Your task to perform on an android device: Search for hotels in NYC Image 0: 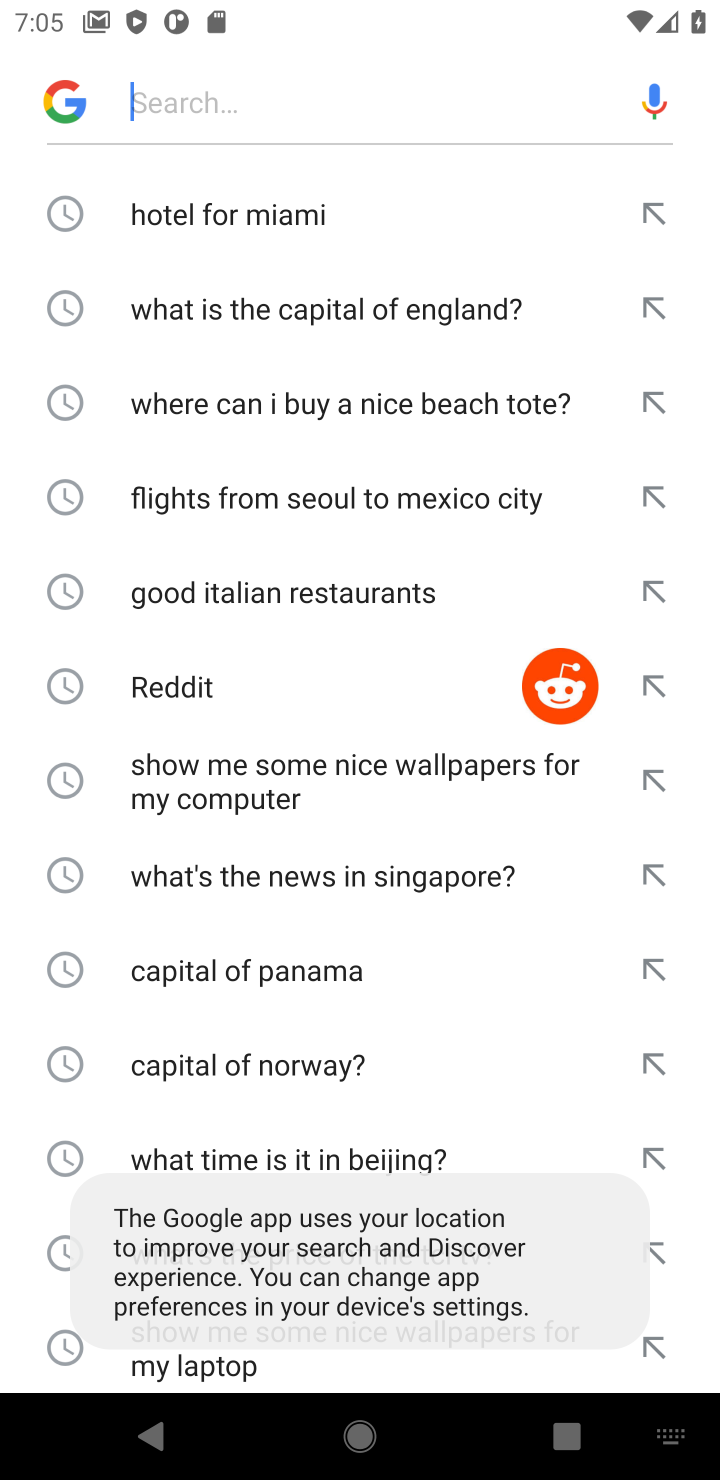
Step 0: press home button
Your task to perform on an android device: Search for hotels in NYC Image 1: 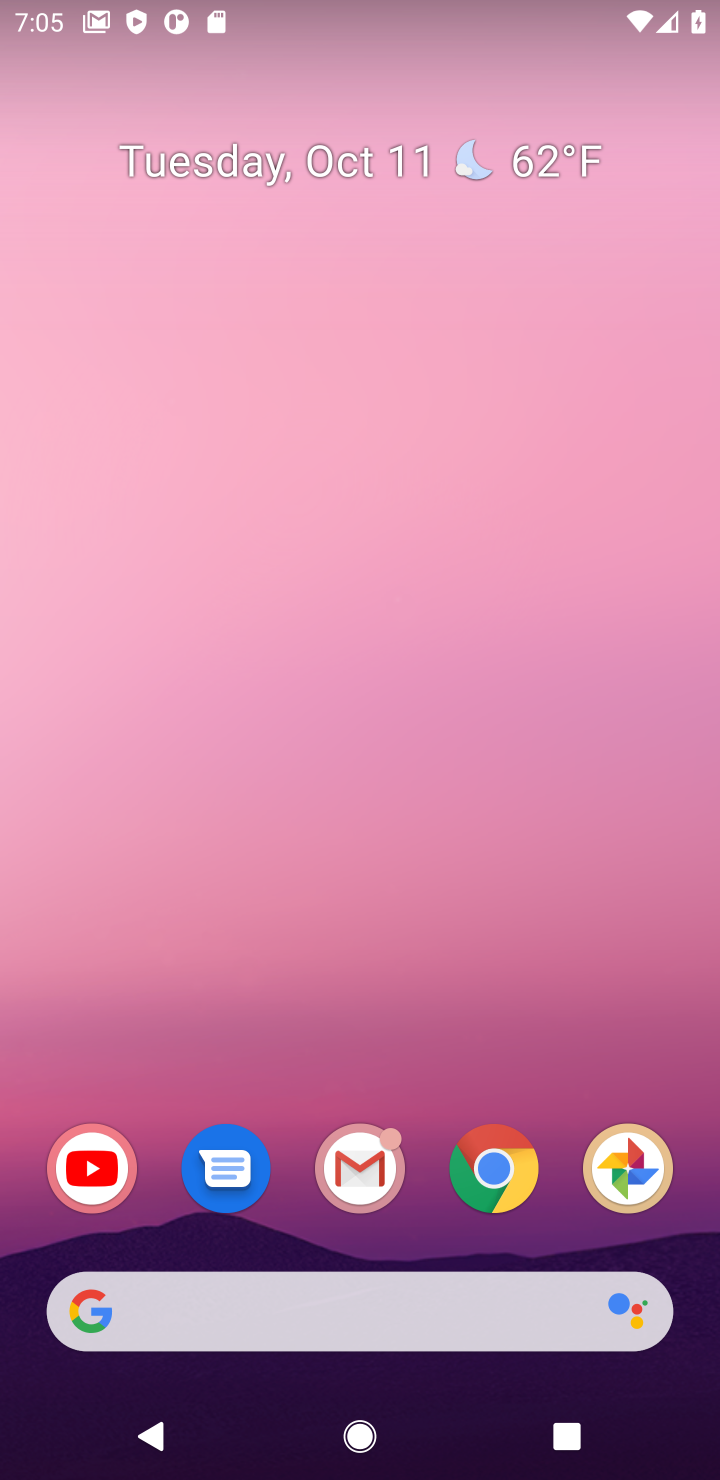
Step 1: click (523, 1170)
Your task to perform on an android device: Search for hotels in NYC Image 2: 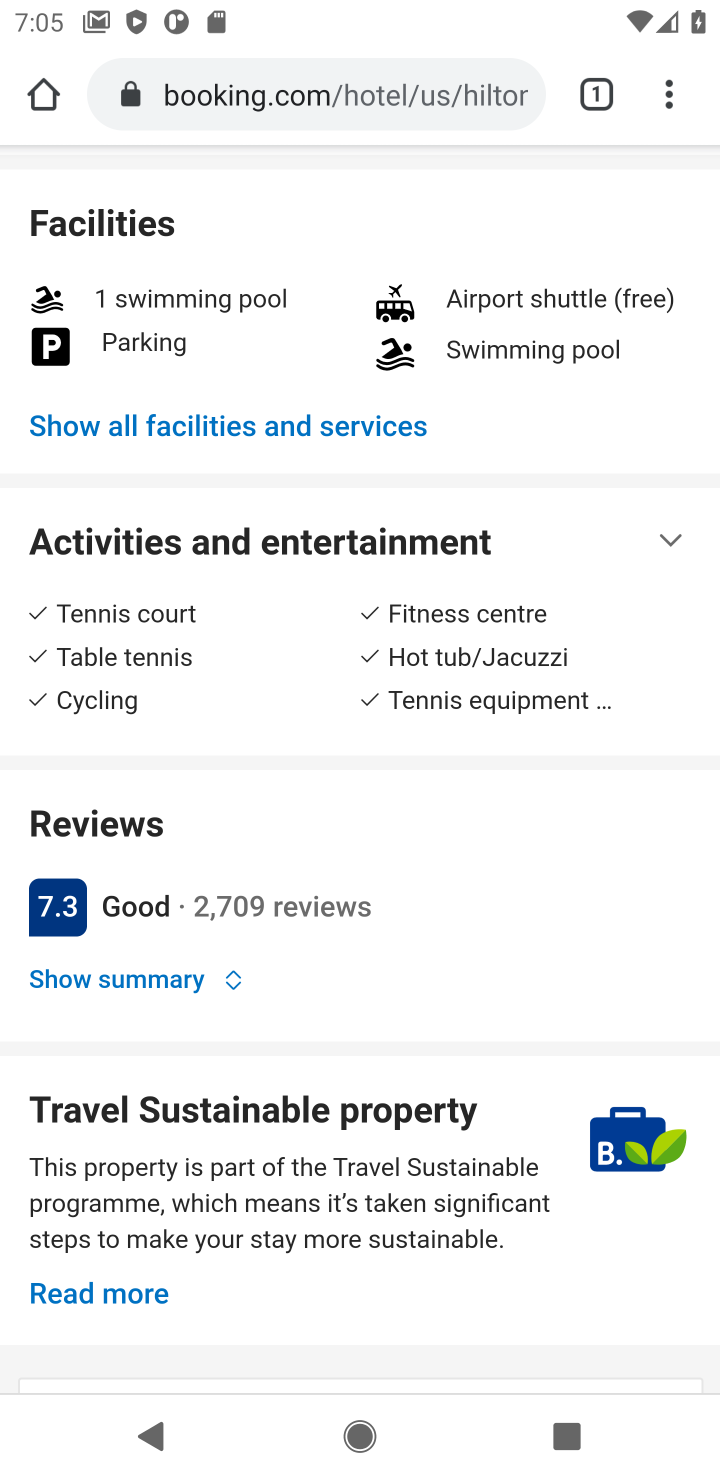
Step 2: click (252, 93)
Your task to perform on an android device: Search for hotels in NYC Image 3: 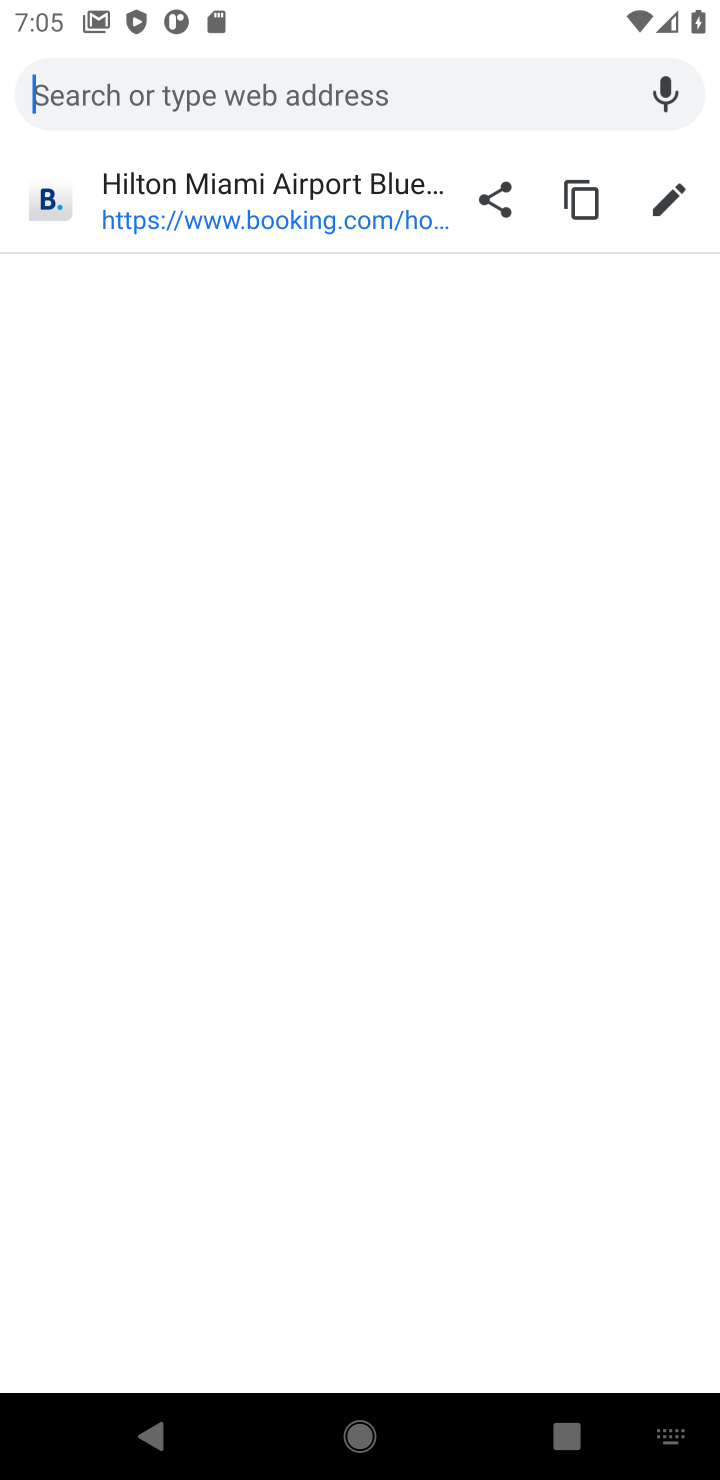
Step 3: type "hotel in nyc"
Your task to perform on an android device: Search for hotels in NYC Image 4: 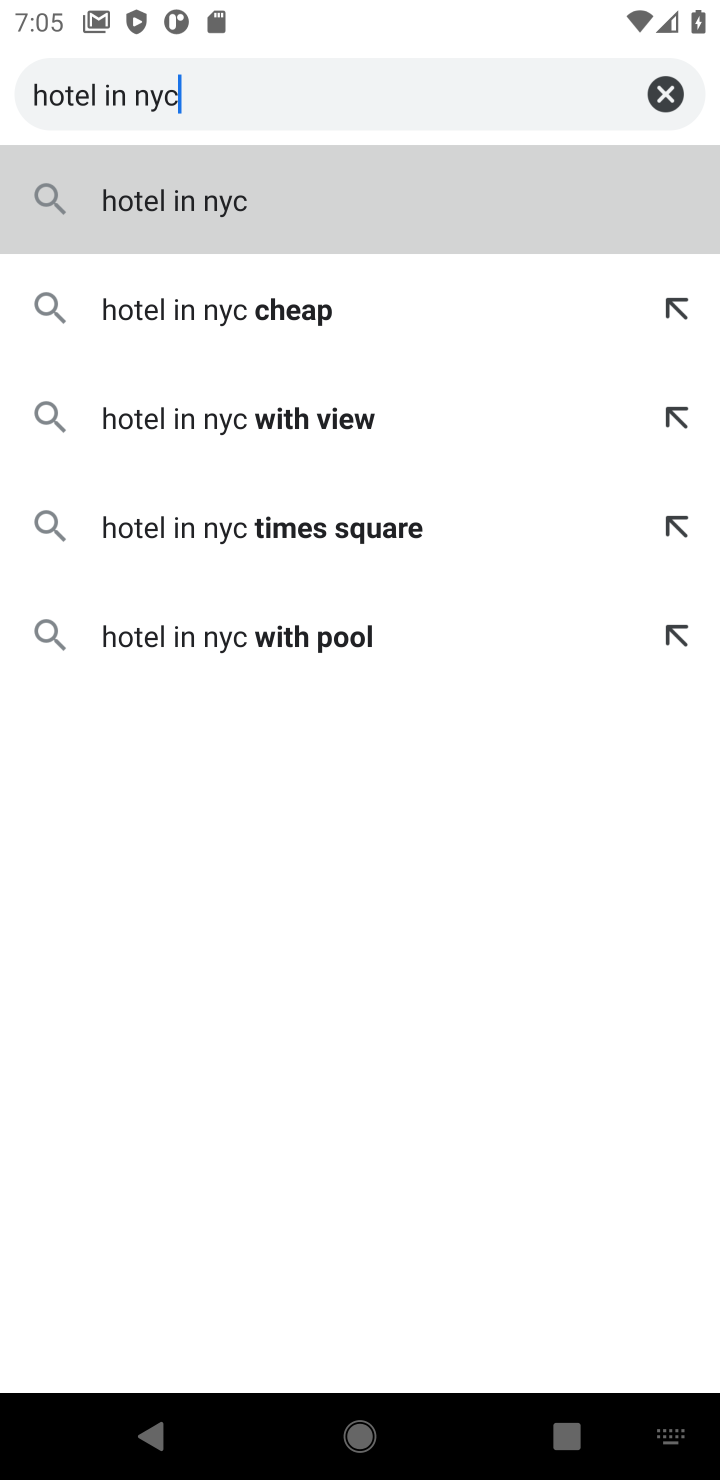
Step 4: click (290, 216)
Your task to perform on an android device: Search for hotels in NYC Image 5: 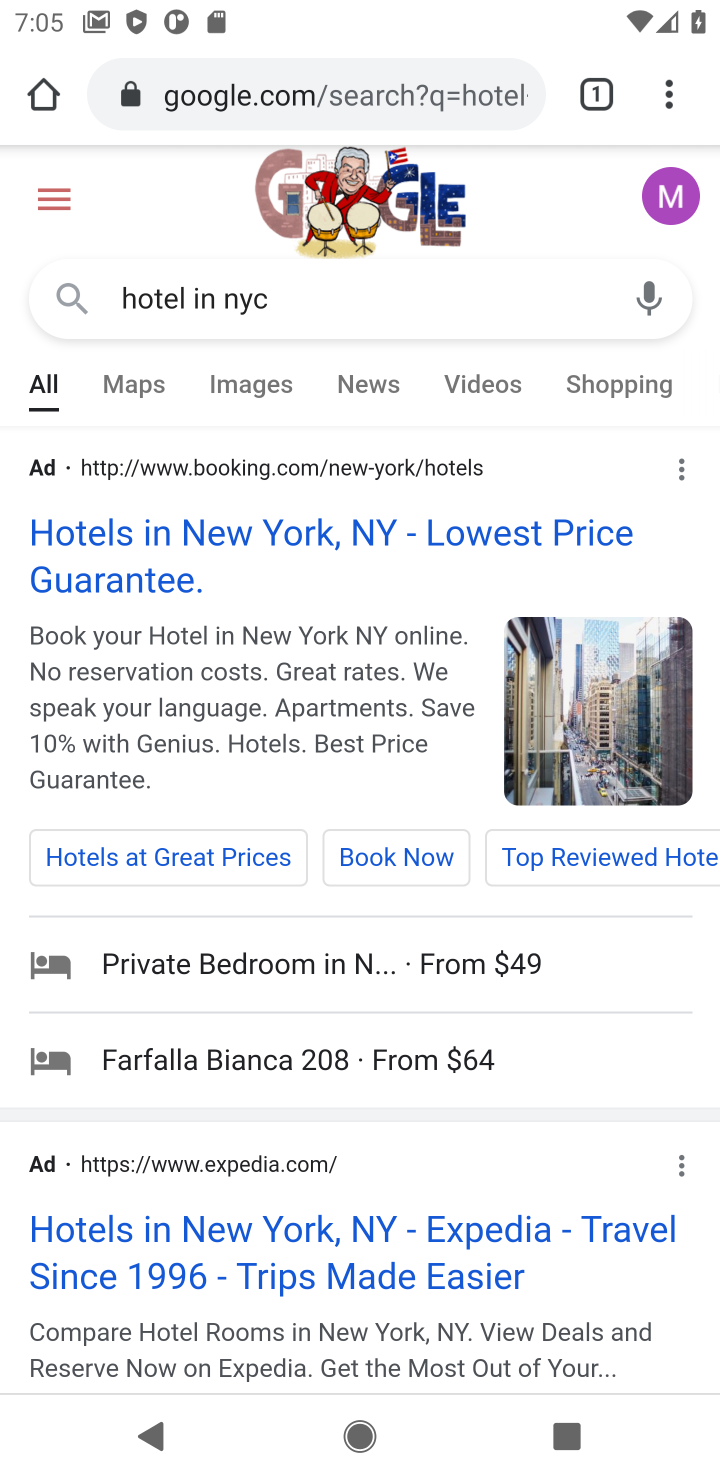
Step 5: click (197, 528)
Your task to perform on an android device: Search for hotels in NYC Image 6: 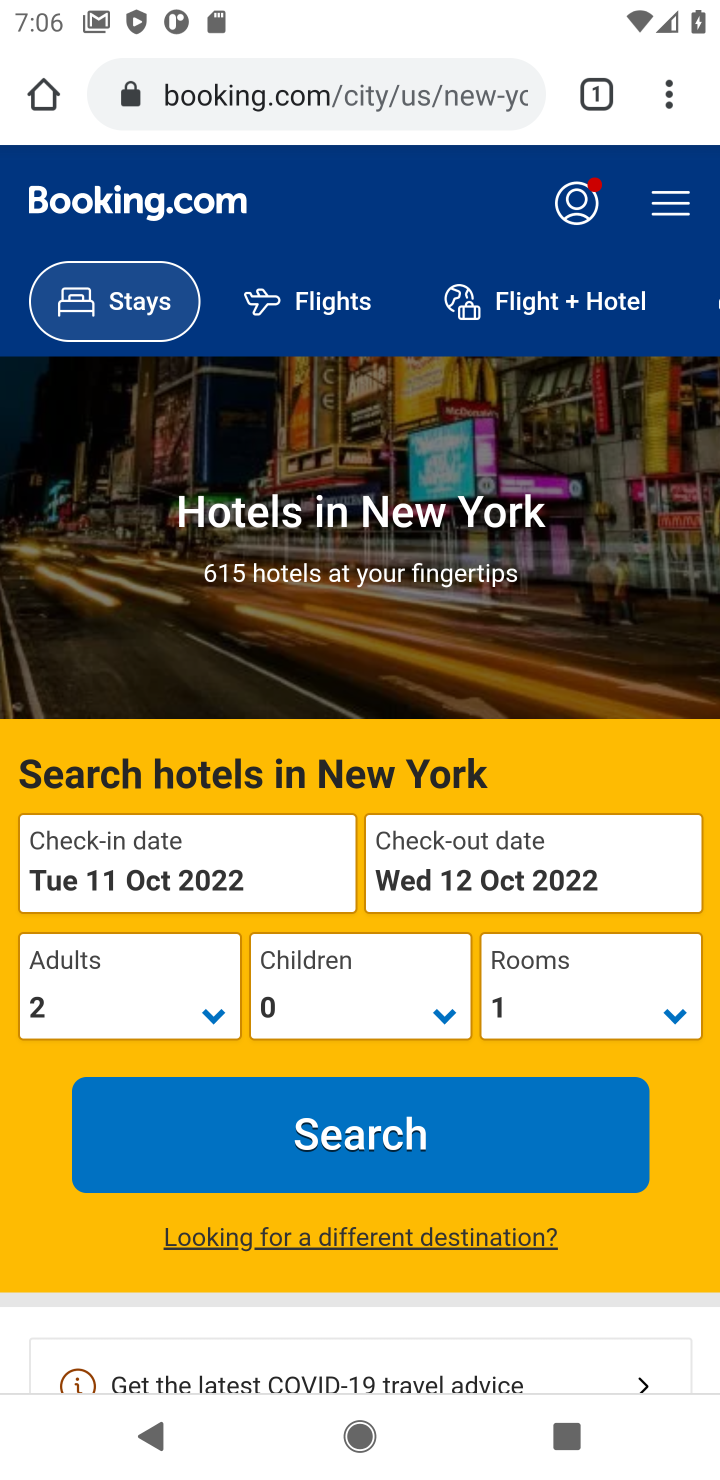
Step 6: drag from (501, 386) to (520, 279)
Your task to perform on an android device: Search for hotels in NYC Image 7: 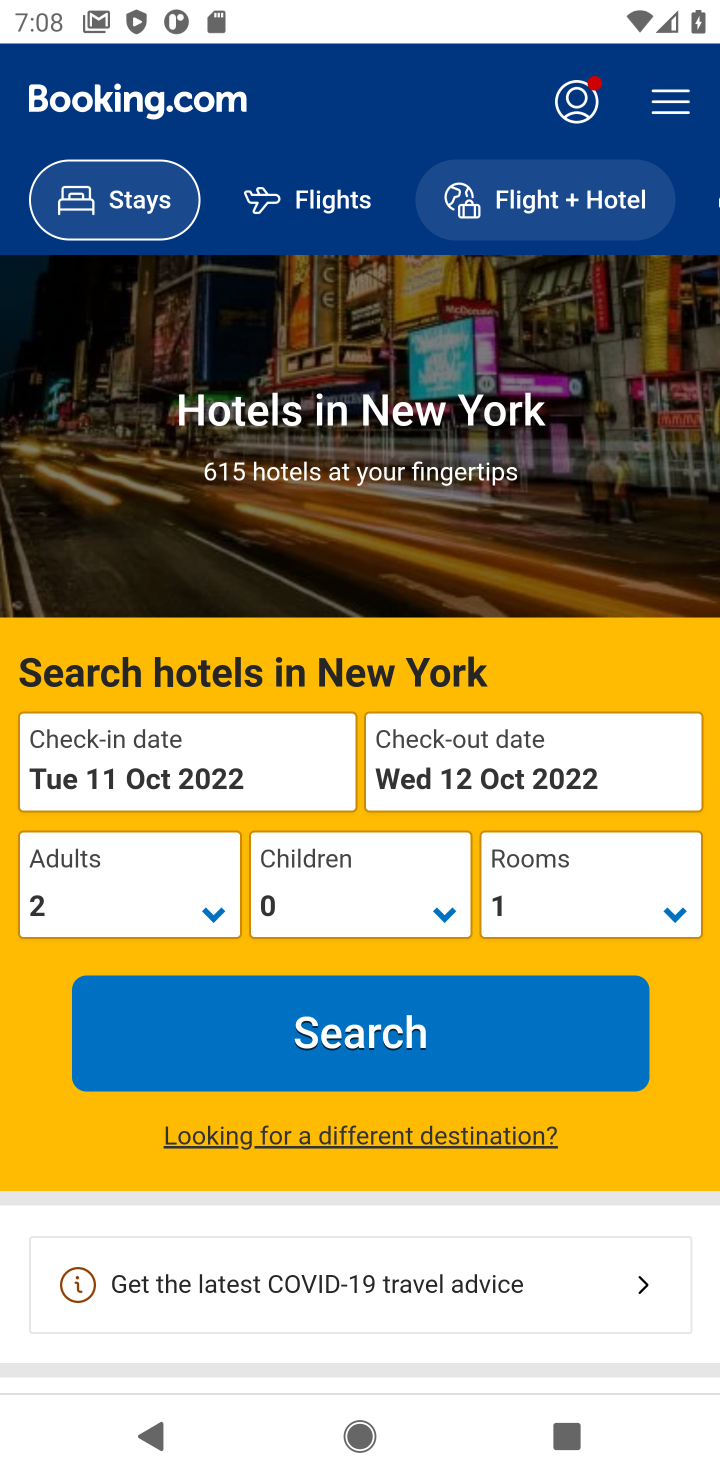
Step 7: drag from (484, 626) to (531, 278)
Your task to perform on an android device: Search for hotels in NYC Image 8: 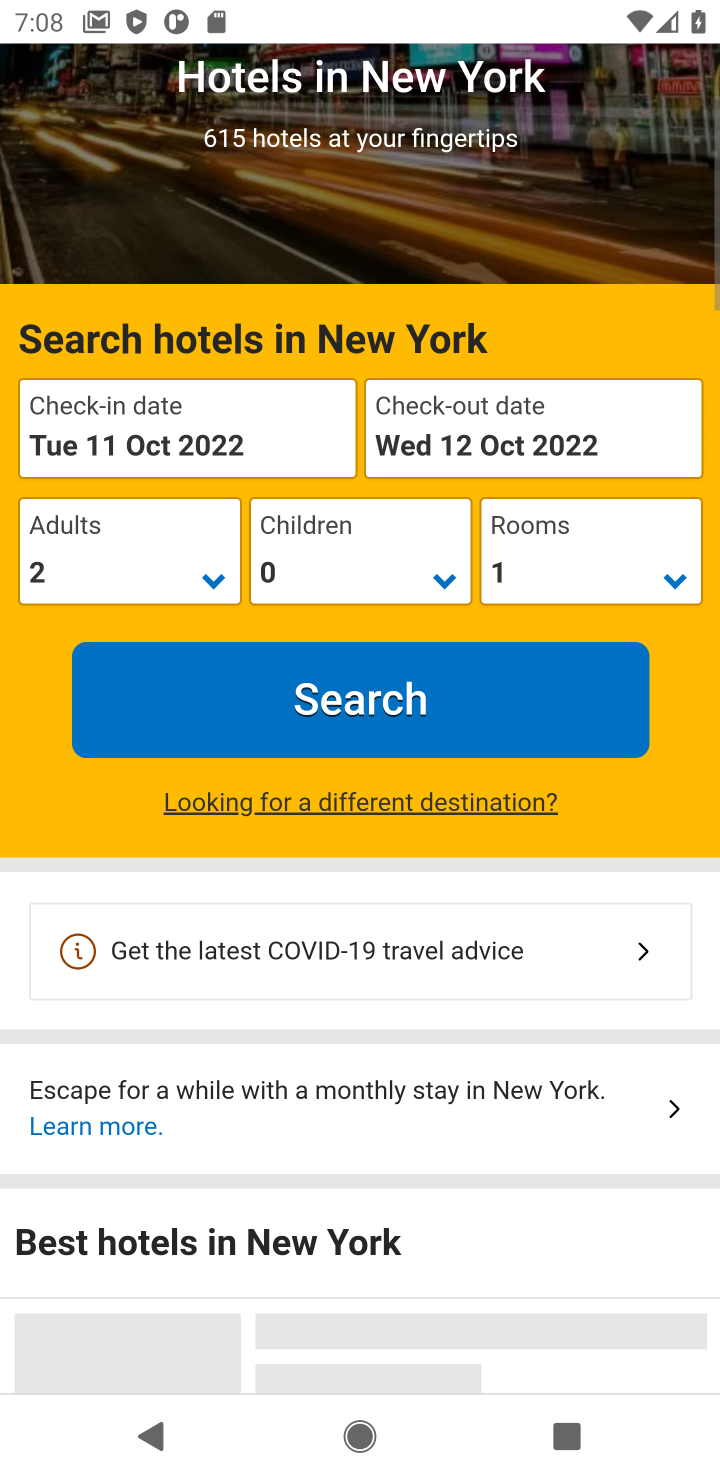
Step 8: drag from (48, 1116) to (94, 376)
Your task to perform on an android device: Search for hotels in NYC Image 9: 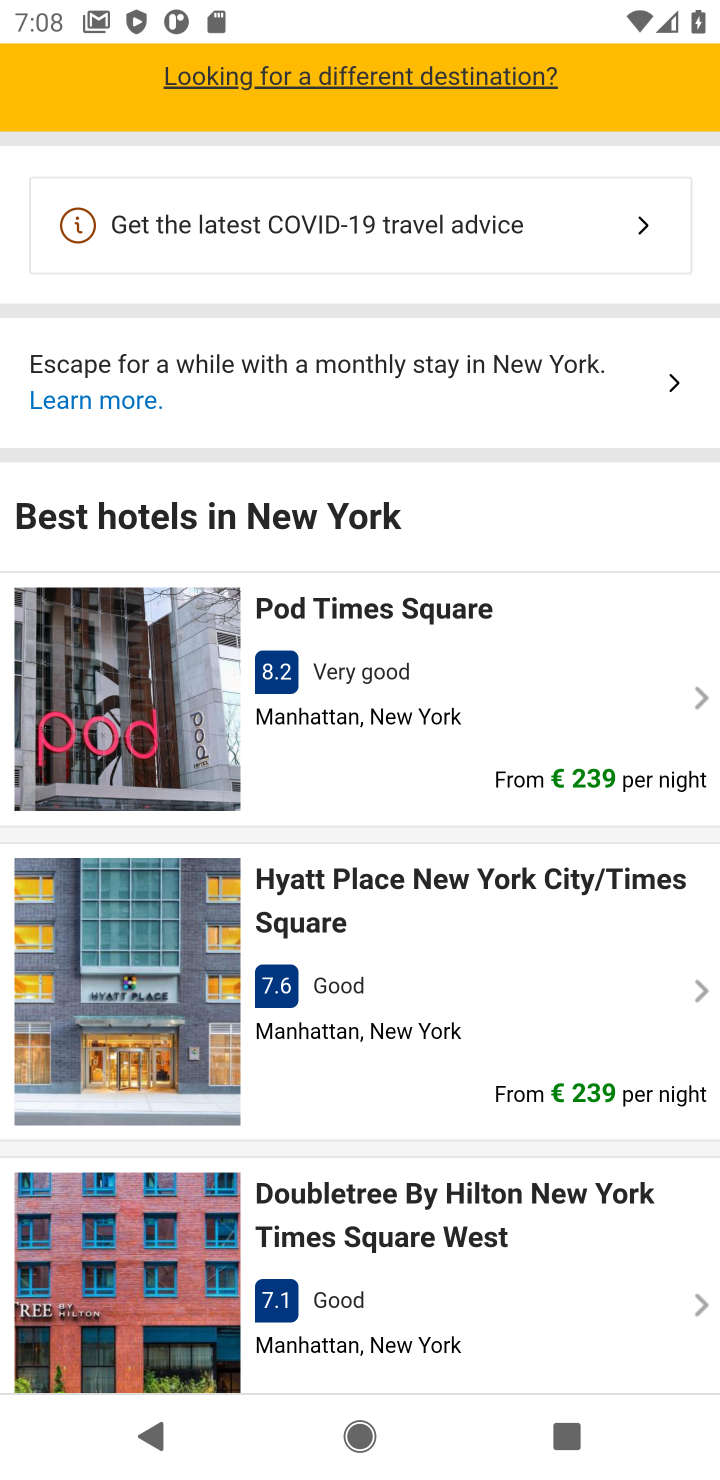
Step 9: drag from (513, 994) to (513, 386)
Your task to perform on an android device: Search for hotels in NYC Image 10: 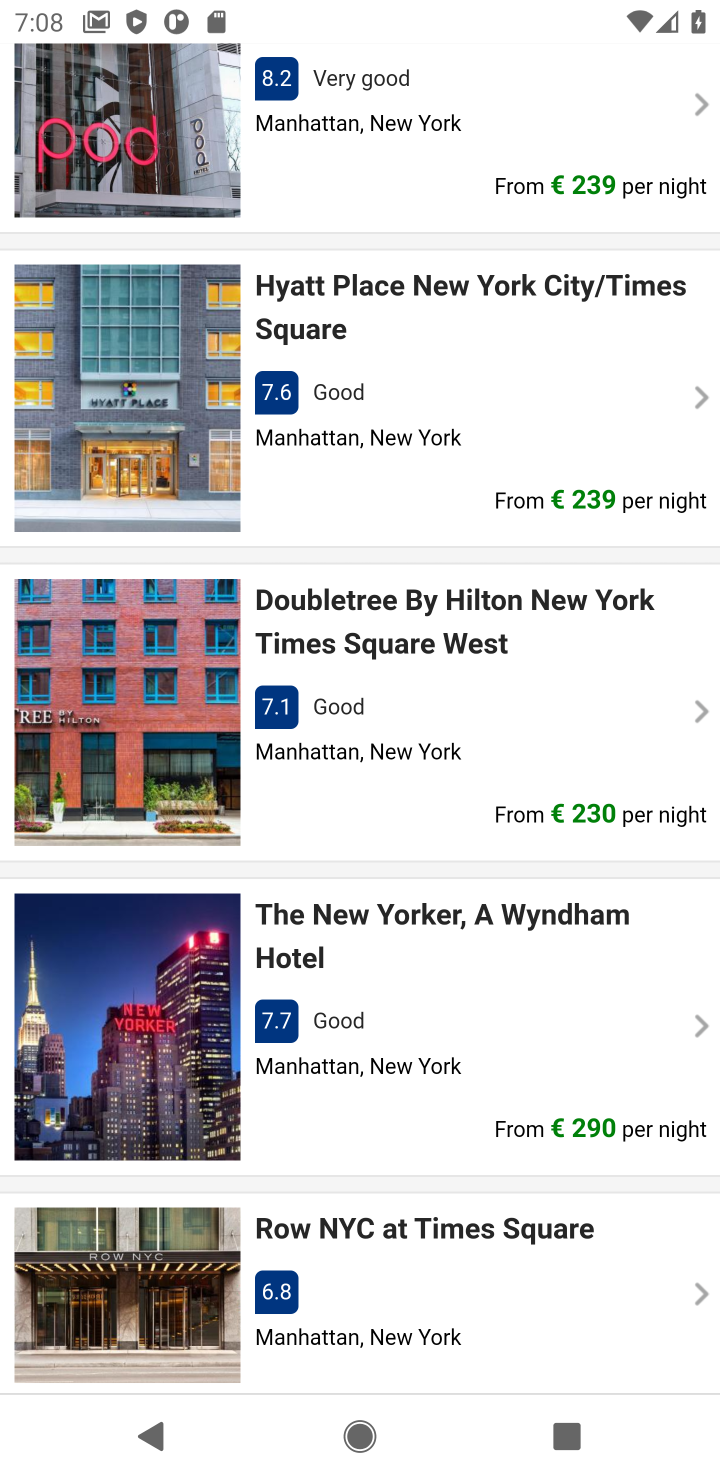
Step 10: click (290, 902)
Your task to perform on an android device: Search for hotels in NYC Image 11: 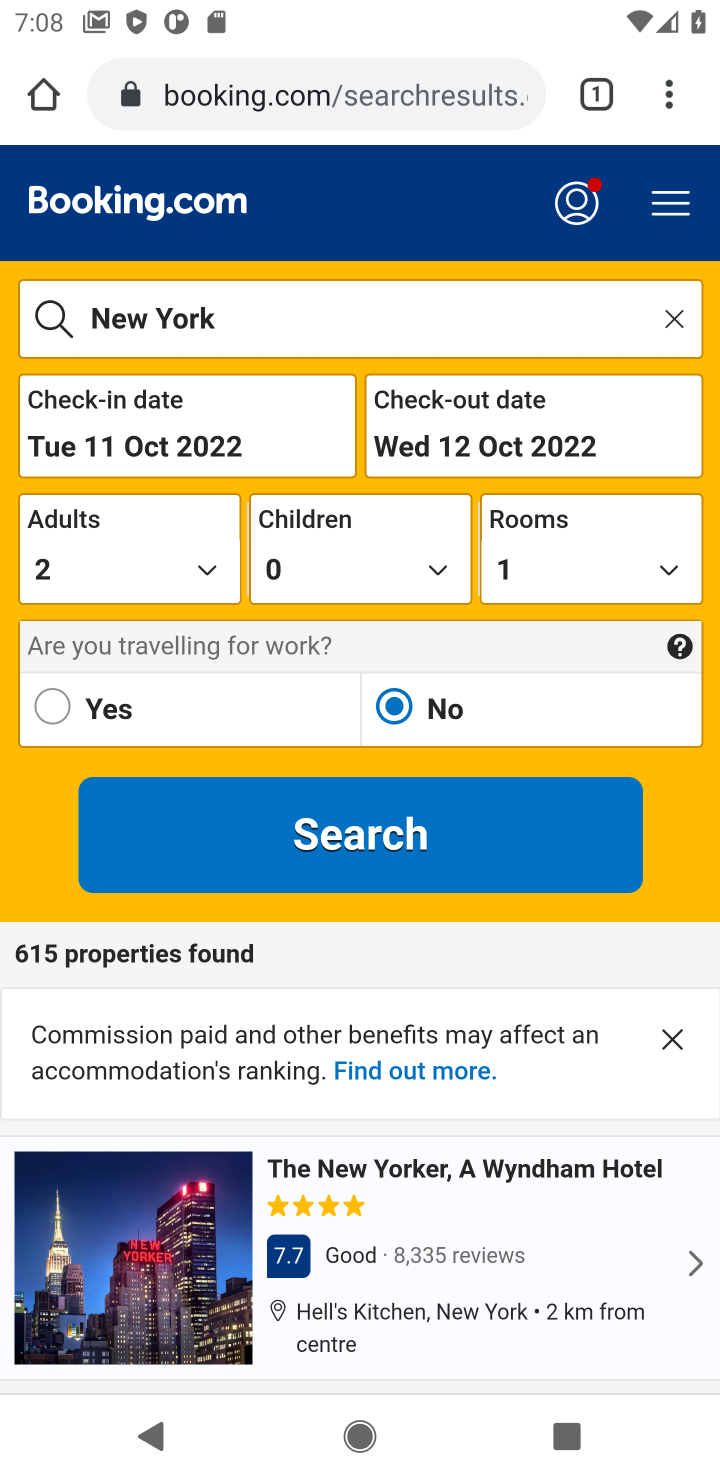
Step 11: drag from (455, 1163) to (511, 173)
Your task to perform on an android device: Search for hotels in NYC Image 12: 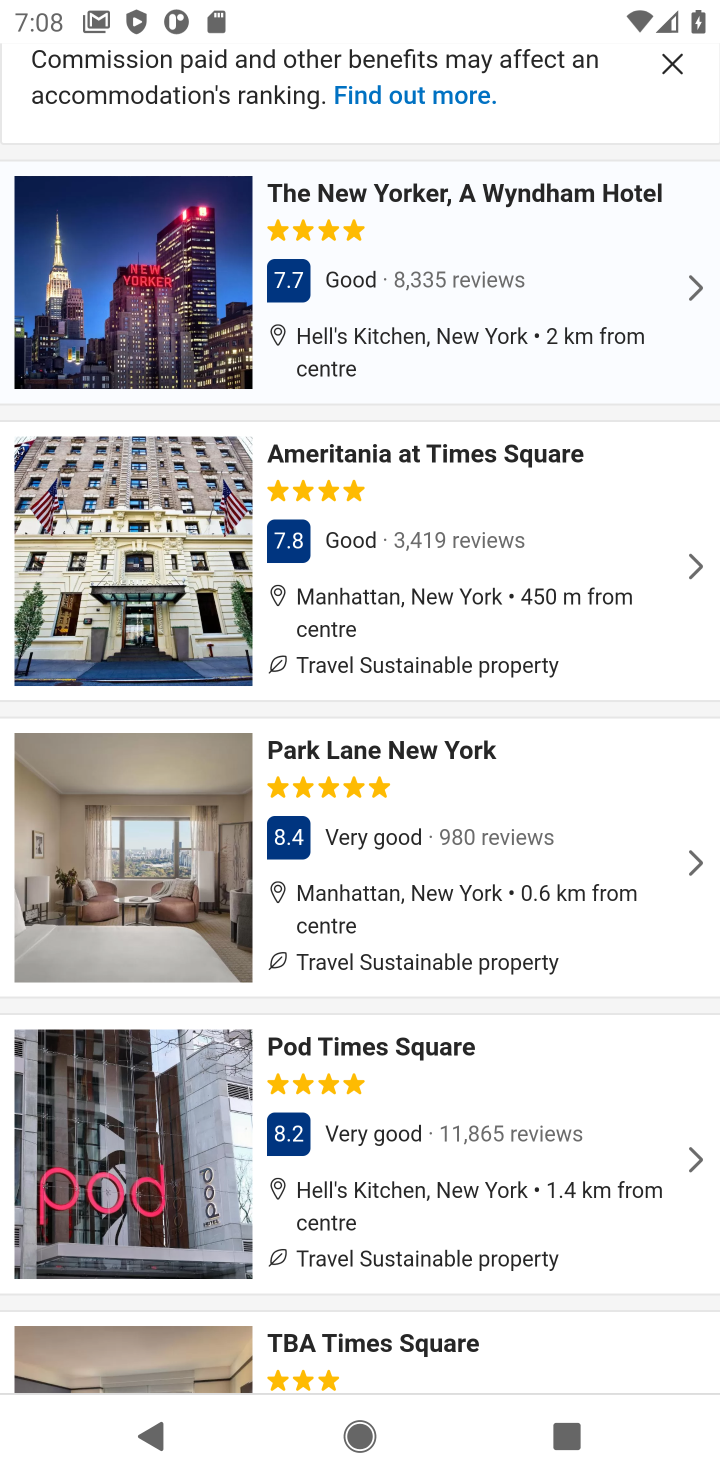
Step 12: click (361, 451)
Your task to perform on an android device: Search for hotels in NYC Image 13: 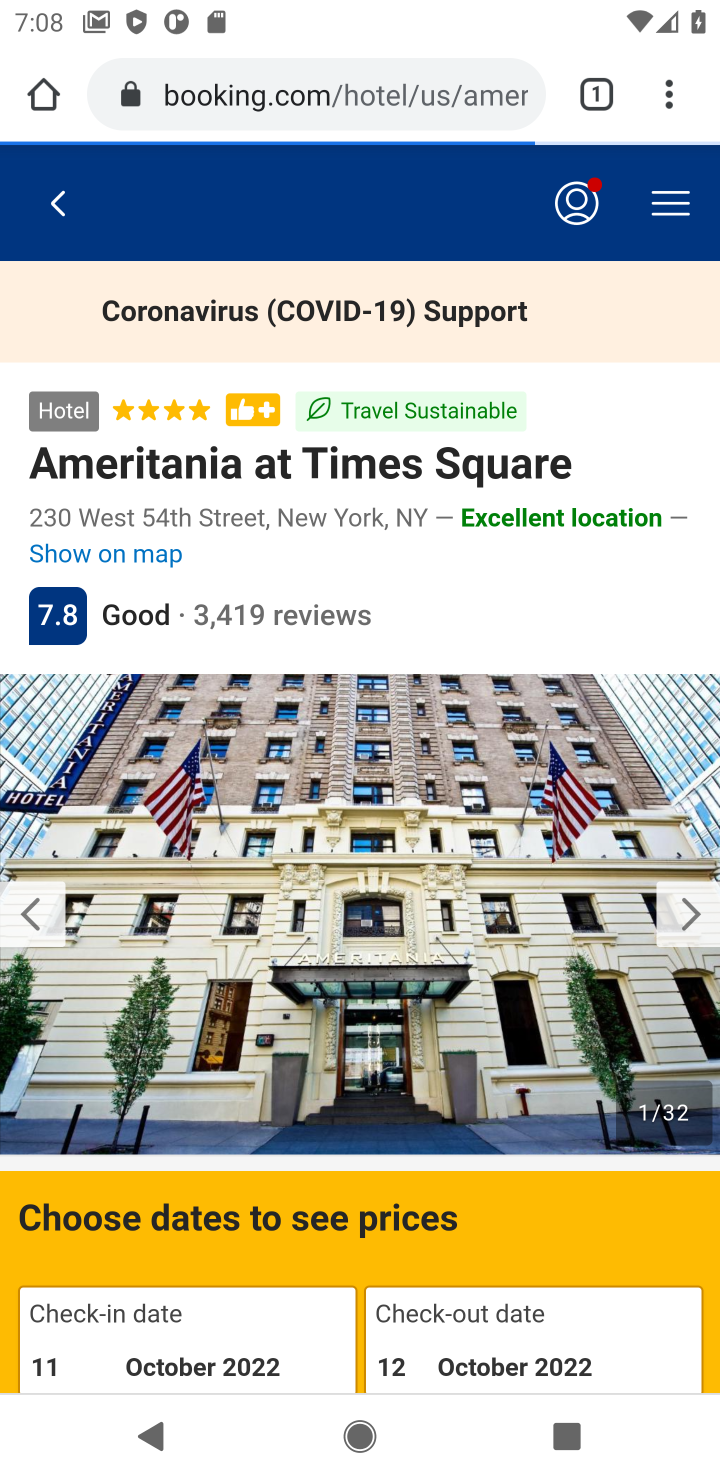
Step 13: task complete